Your task to perform on an android device: turn off picture-in-picture Image 0: 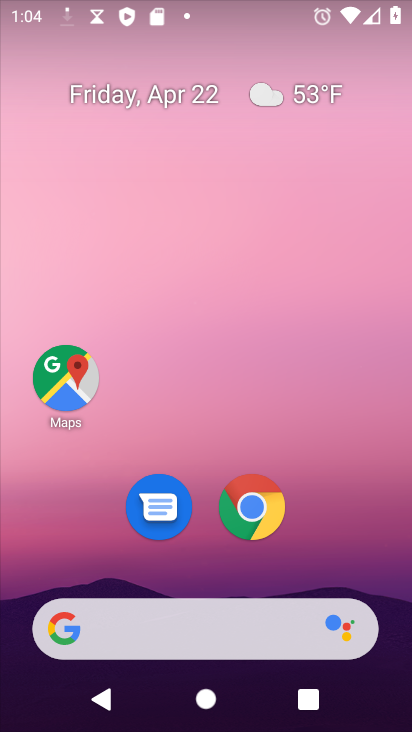
Step 0: drag from (288, 440) to (302, 63)
Your task to perform on an android device: turn off picture-in-picture Image 1: 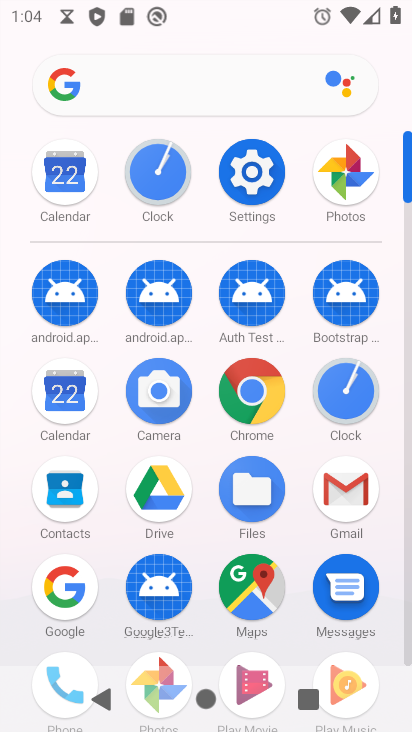
Step 1: click (254, 171)
Your task to perform on an android device: turn off picture-in-picture Image 2: 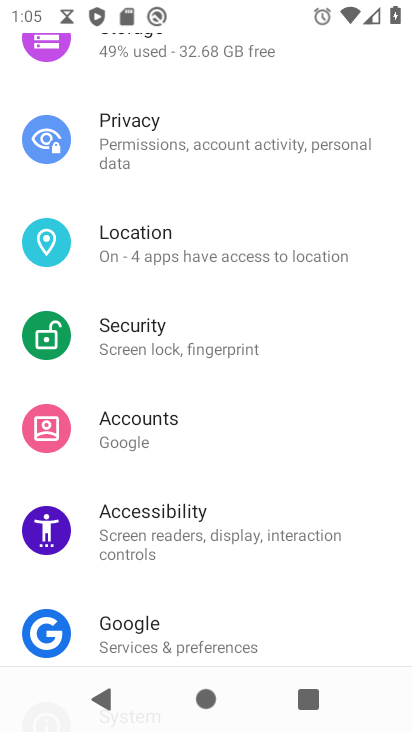
Step 2: drag from (374, 119) to (355, 555)
Your task to perform on an android device: turn off picture-in-picture Image 3: 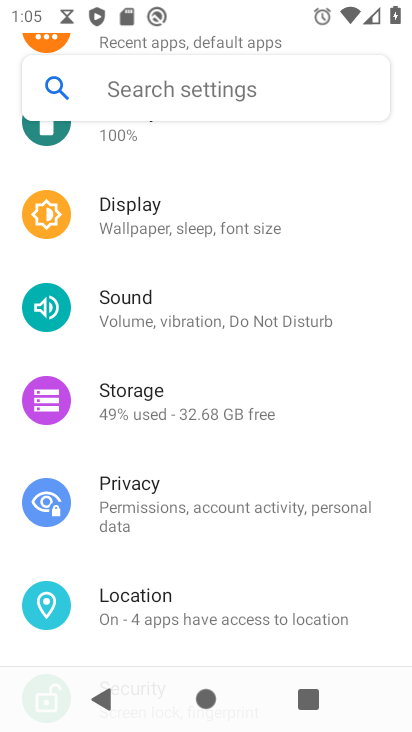
Step 3: drag from (319, 165) to (299, 534)
Your task to perform on an android device: turn off picture-in-picture Image 4: 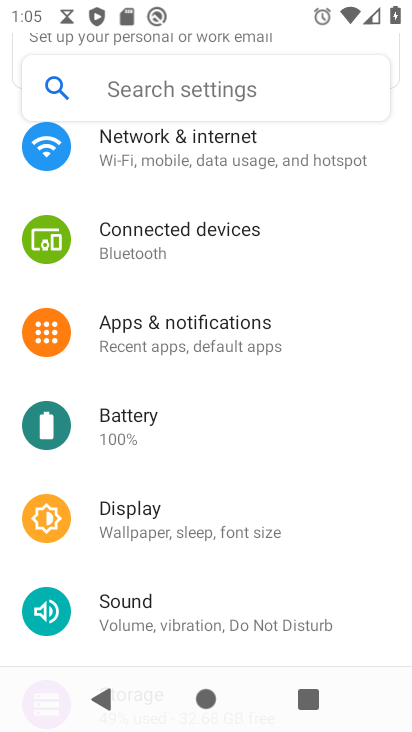
Step 4: click (182, 345)
Your task to perform on an android device: turn off picture-in-picture Image 5: 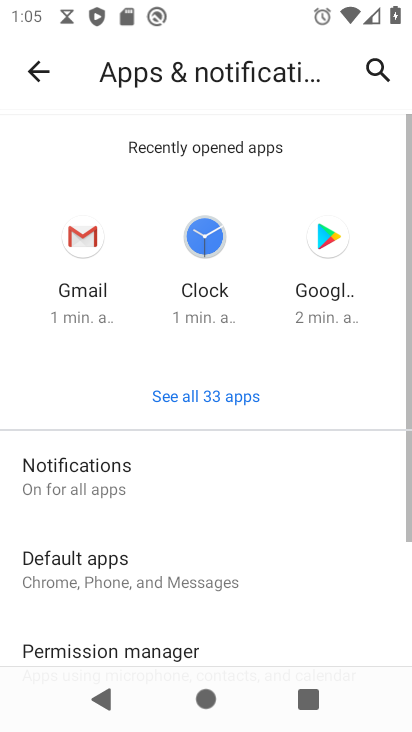
Step 5: drag from (265, 598) to (252, 169)
Your task to perform on an android device: turn off picture-in-picture Image 6: 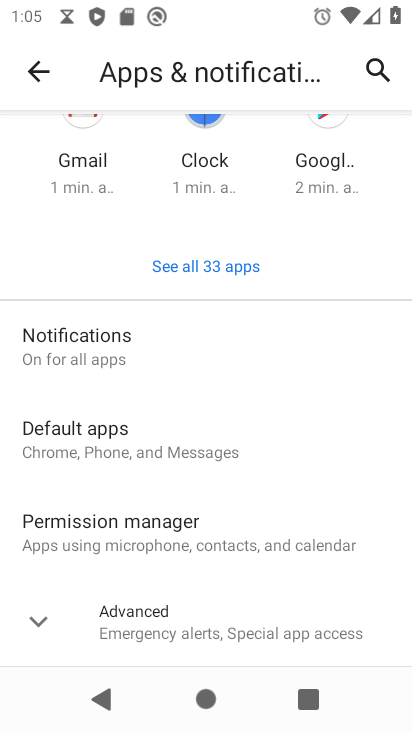
Step 6: click (172, 622)
Your task to perform on an android device: turn off picture-in-picture Image 7: 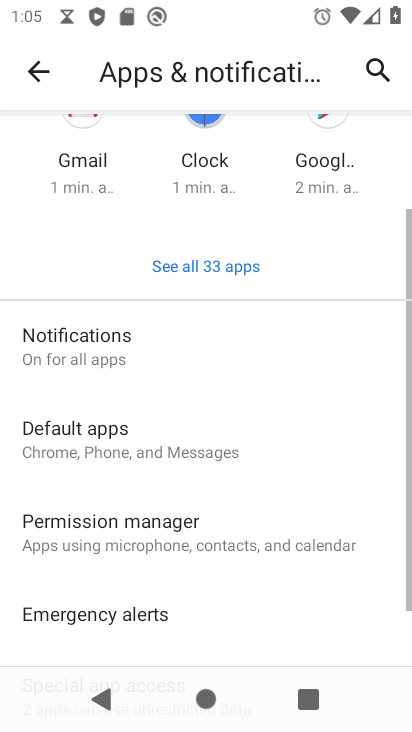
Step 7: drag from (174, 600) to (163, 214)
Your task to perform on an android device: turn off picture-in-picture Image 8: 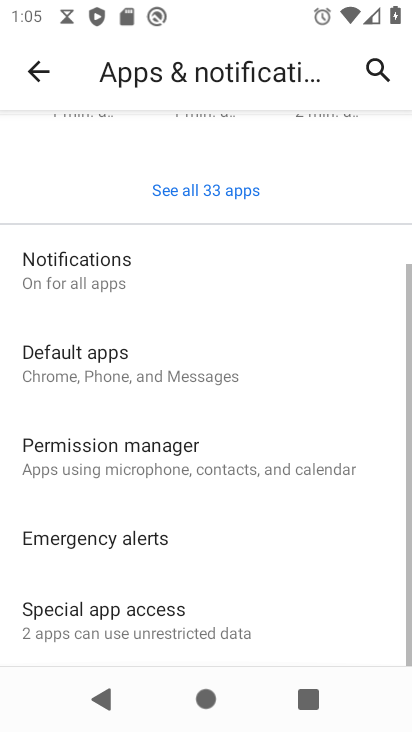
Step 8: click (144, 634)
Your task to perform on an android device: turn off picture-in-picture Image 9: 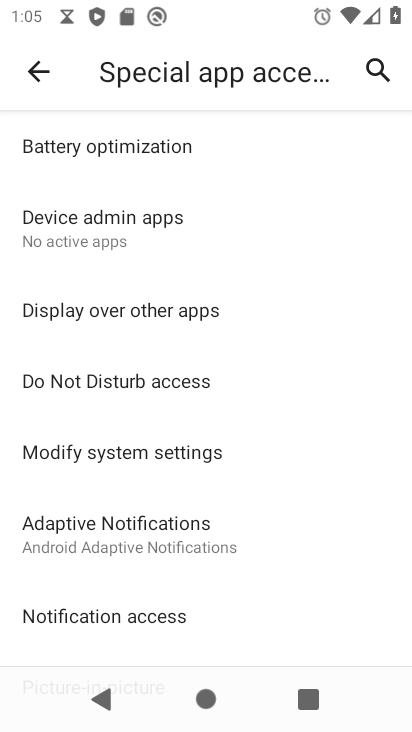
Step 9: drag from (237, 576) to (218, 204)
Your task to perform on an android device: turn off picture-in-picture Image 10: 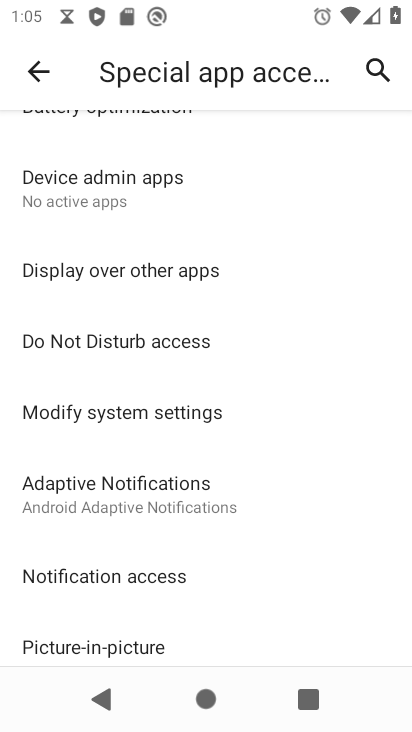
Step 10: click (140, 639)
Your task to perform on an android device: turn off picture-in-picture Image 11: 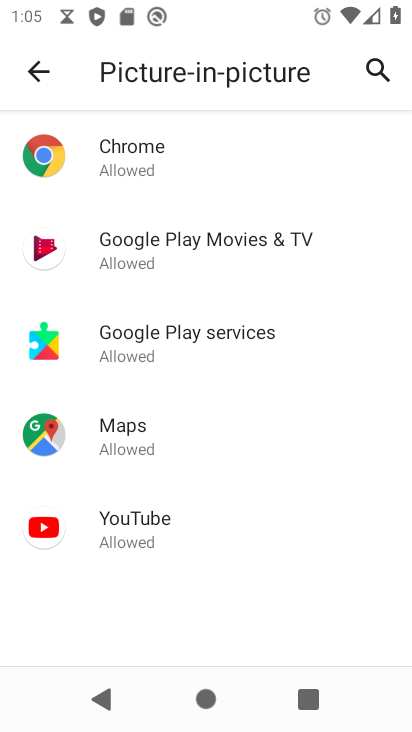
Step 11: click (143, 157)
Your task to perform on an android device: turn off picture-in-picture Image 12: 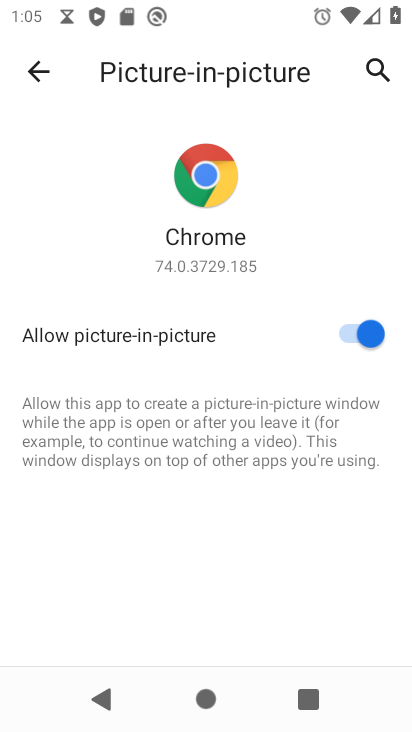
Step 12: click (364, 331)
Your task to perform on an android device: turn off picture-in-picture Image 13: 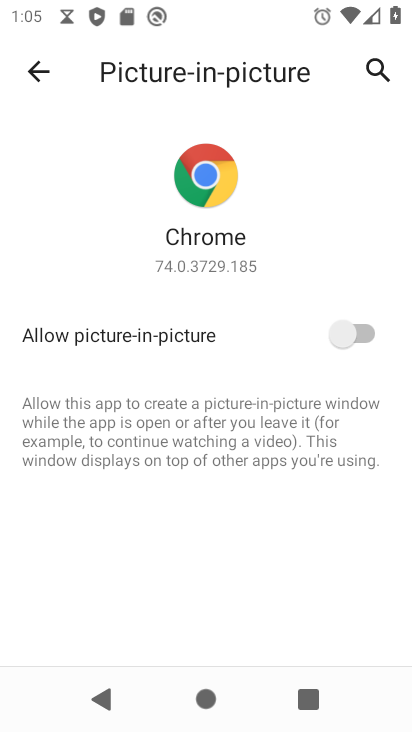
Step 13: task complete